Your task to perform on an android device: open app "ColorNote Notepad Notes" (install if not already installed) and go to login screen Image 0: 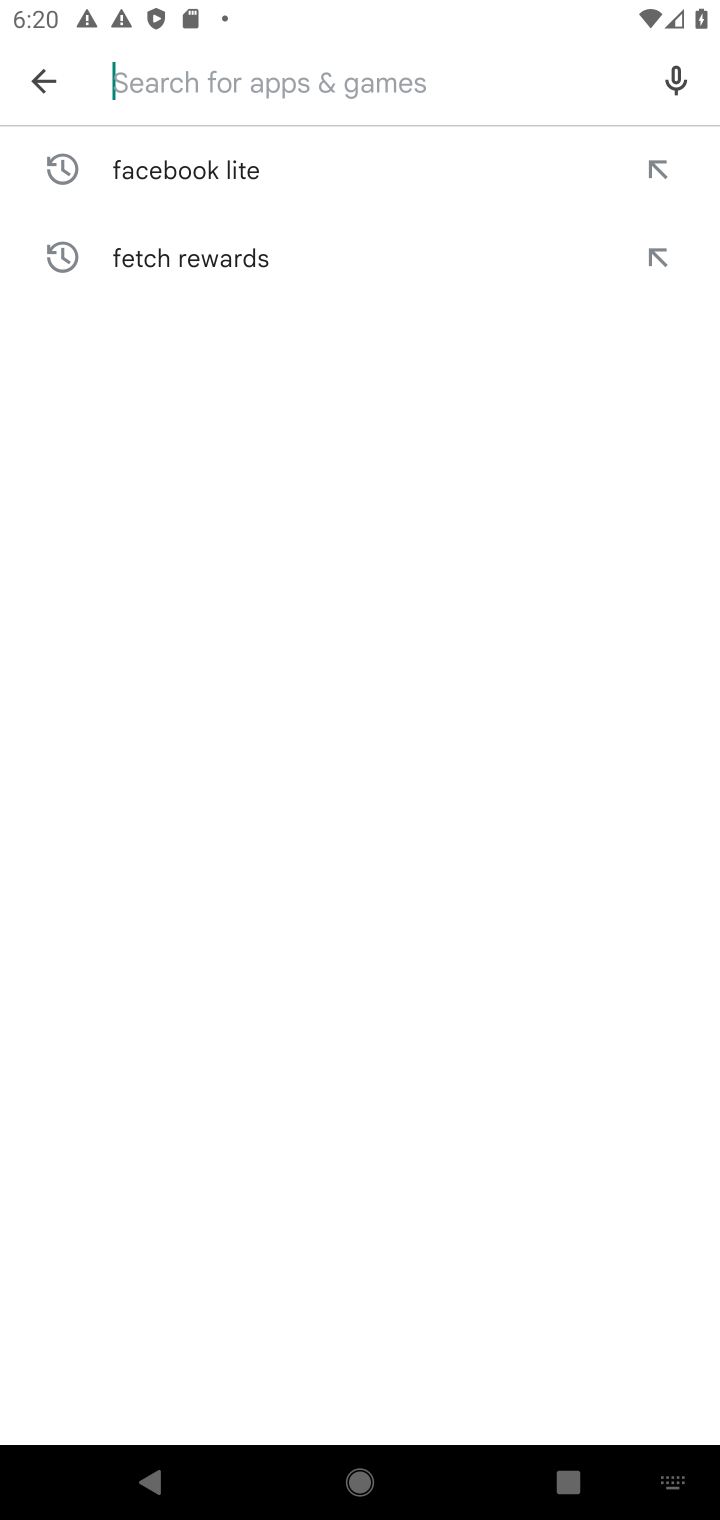
Step 0: press home button
Your task to perform on an android device: open app "ColorNote Notepad Notes" (install if not already installed) and go to login screen Image 1: 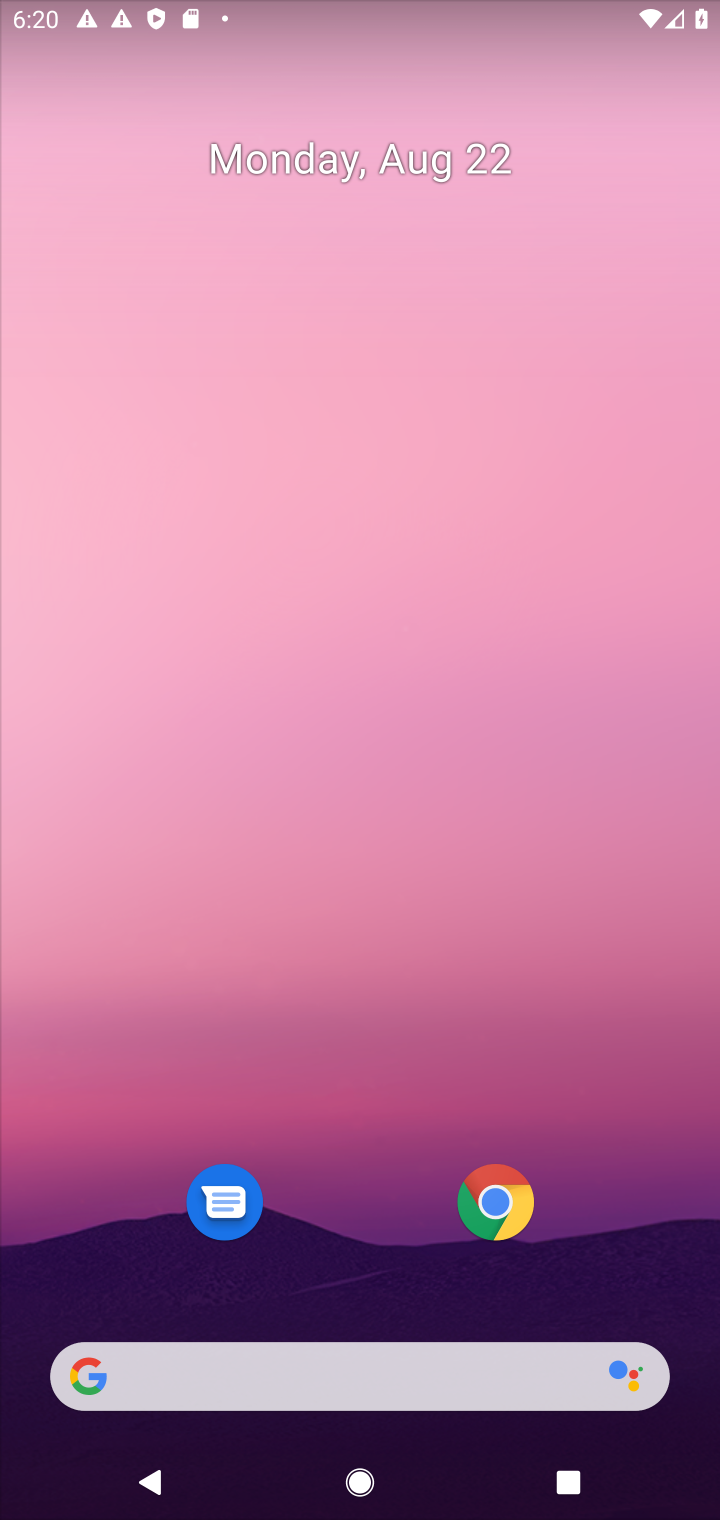
Step 1: drag from (371, 1032) to (386, 229)
Your task to perform on an android device: open app "ColorNote Notepad Notes" (install if not already installed) and go to login screen Image 2: 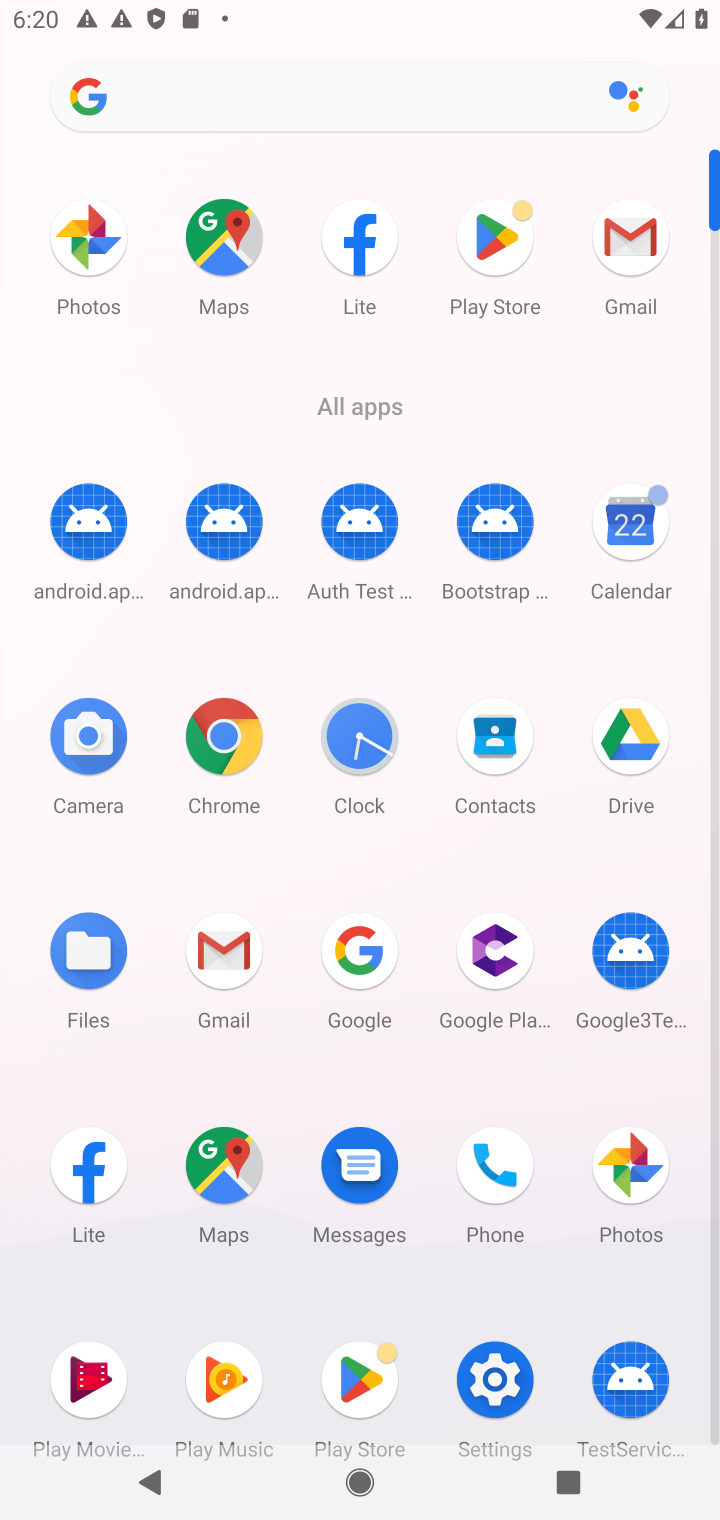
Step 2: click (493, 245)
Your task to perform on an android device: open app "ColorNote Notepad Notes" (install if not already installed) and go to login screen Image 3: 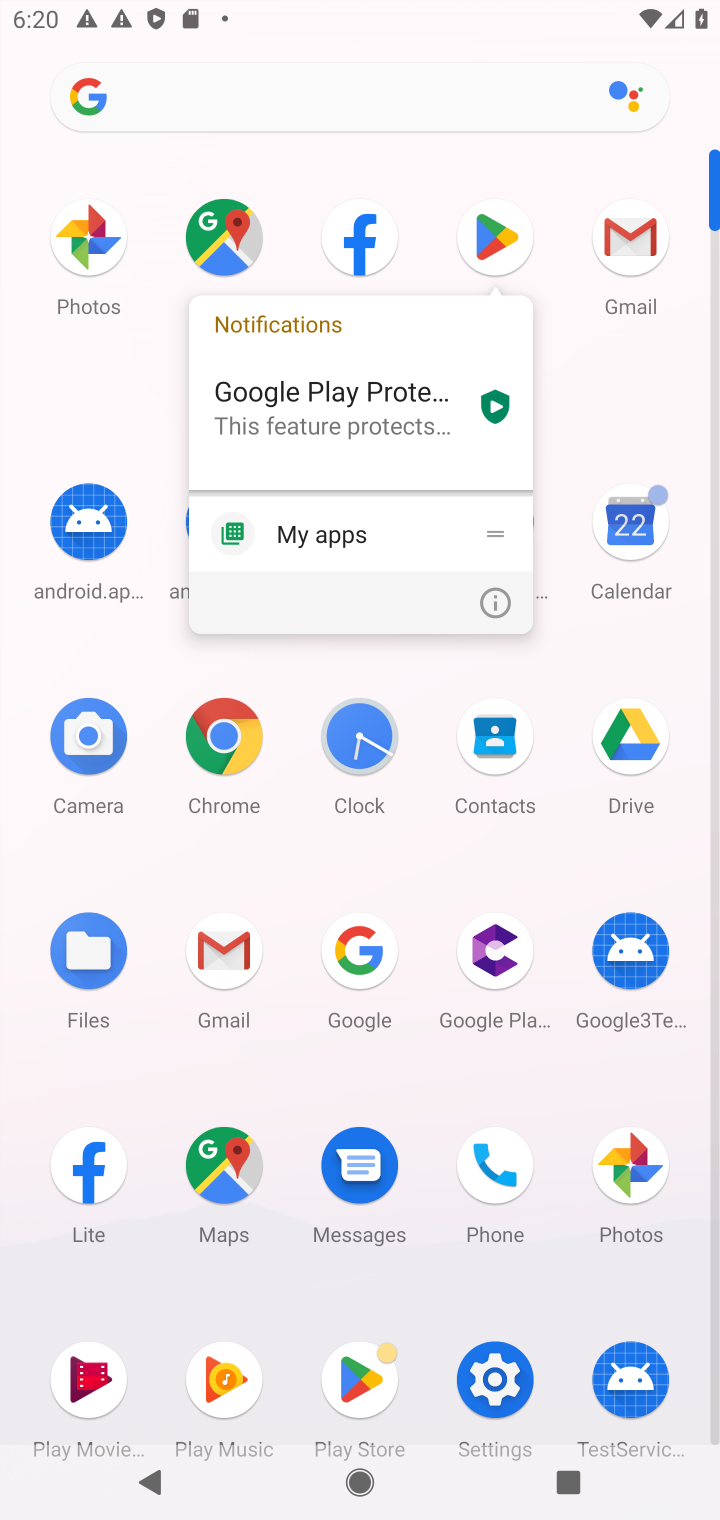
Step 3: click (481, 229)
Your task to perform on an android device: open app "ColorNote Notepad Notes" (install if not already installed) and go to login screen Image 4: 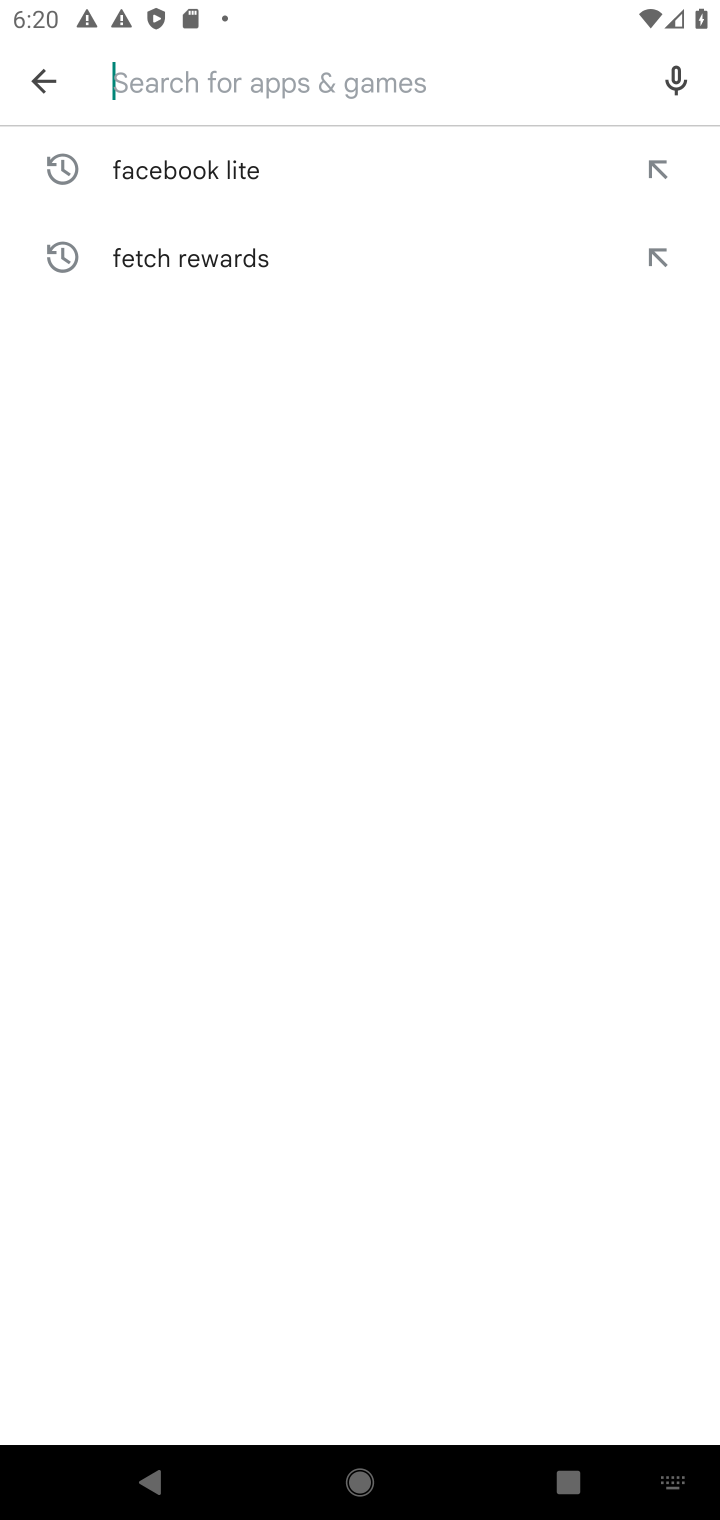
Step 4: type "ColorNote Notepad Notes"
Your task to perform on an android device: open app "ColorNote Notepad Notes" (install if not already installed) and go to login screen Image 5: 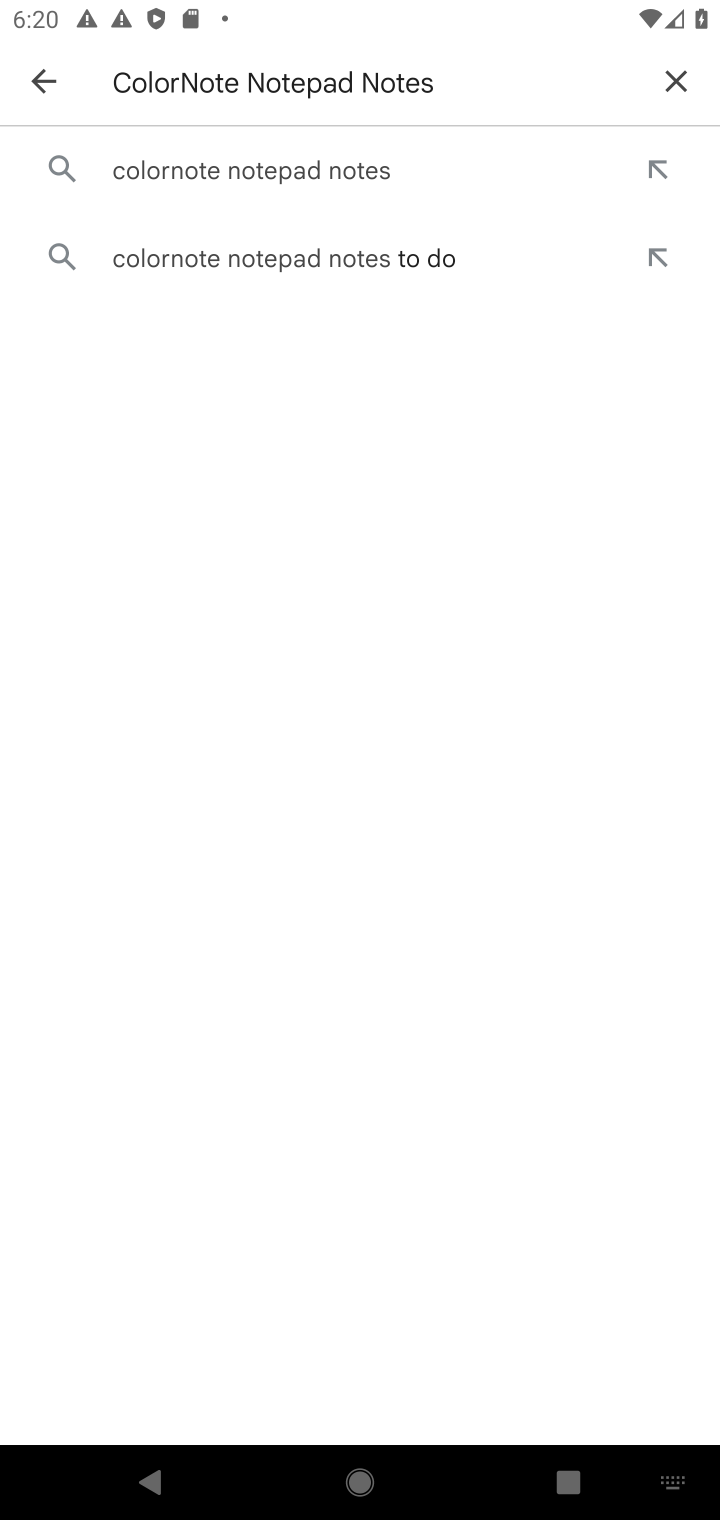
Step 5: click (287, 163)
Your task to perform on an android device: open app "ColorNote Notepad Notes" (install if not already installed) and go to login screen Image 6: 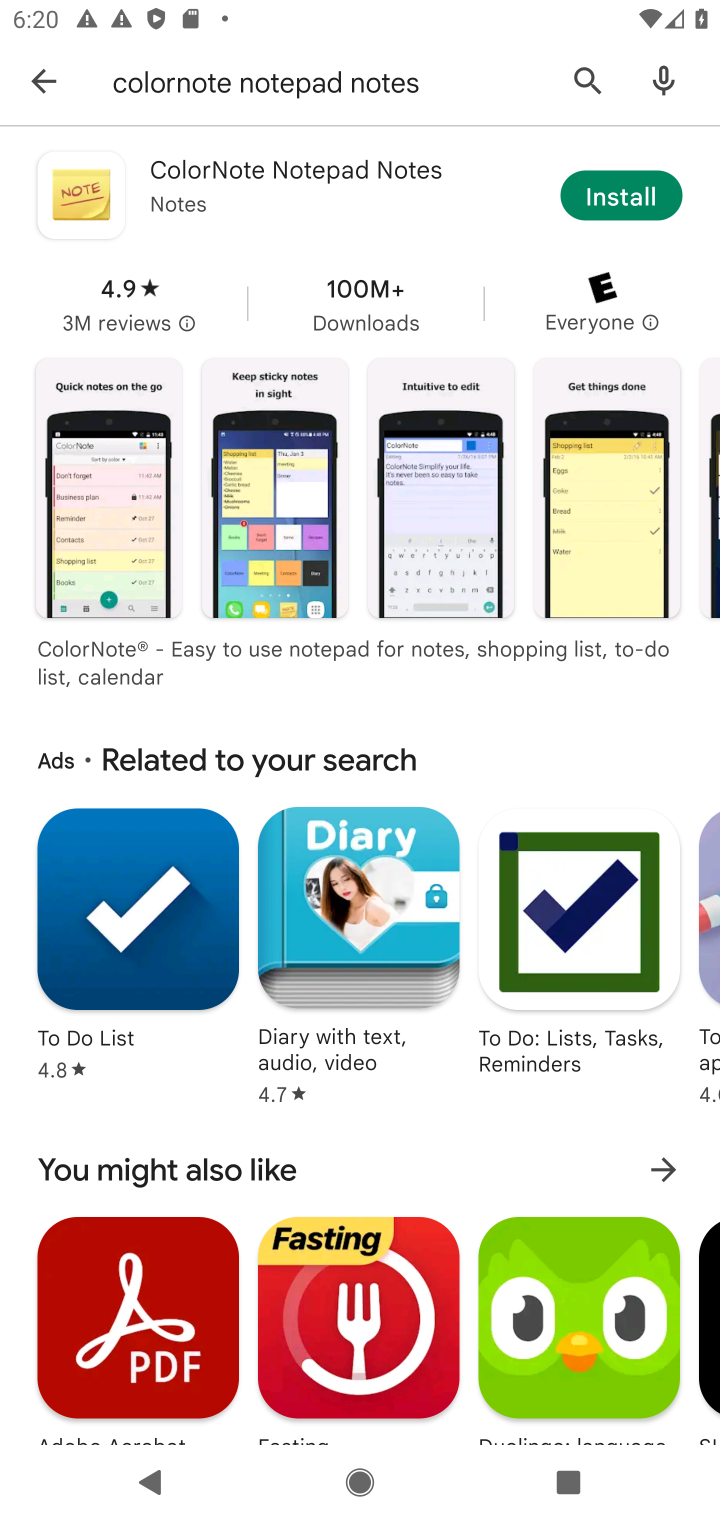
Step 6: click (659, 191)
Your task to perform on an android device: open app "ColorNote Notepad Notes" (install if not already installed) and go to login screen Image 7: 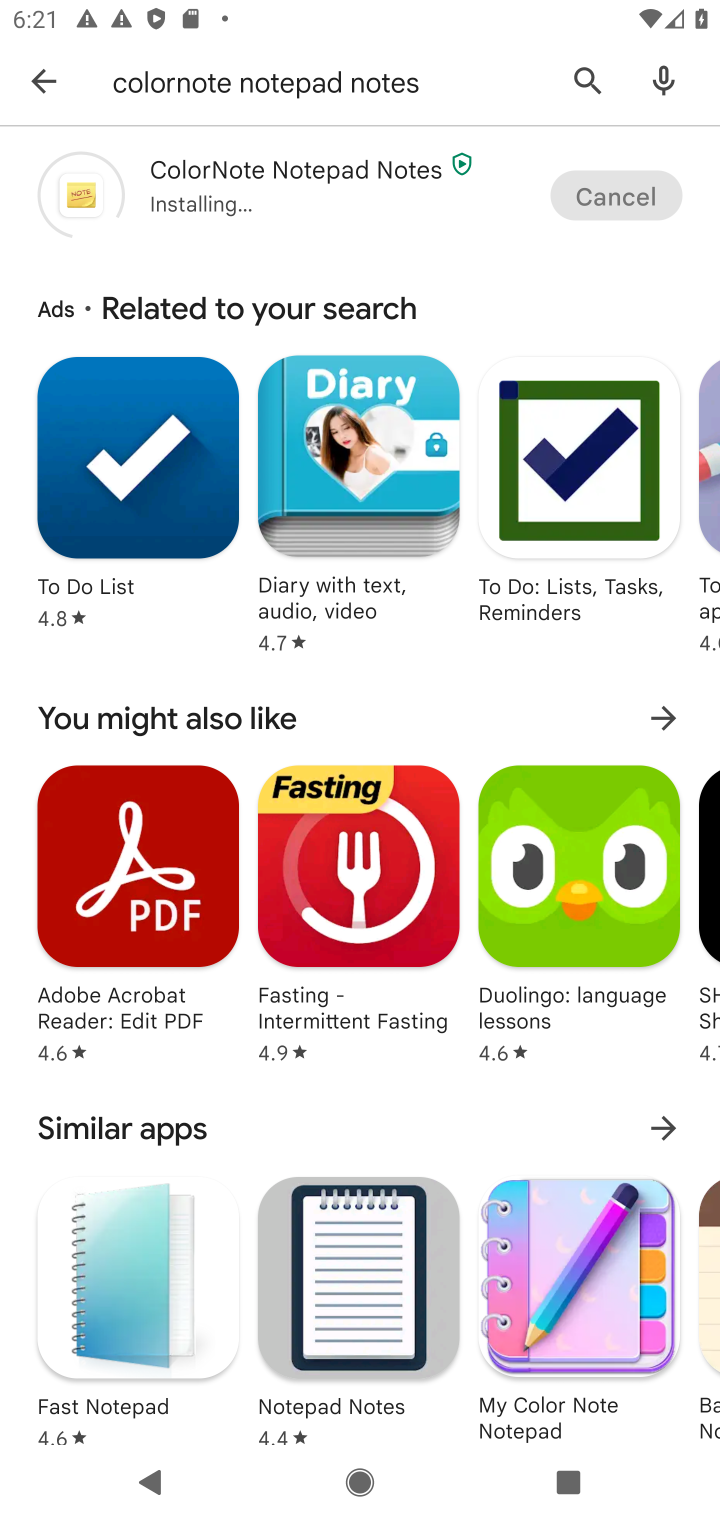
Step 7: task complete